Your task to perform on an android device: toggle pop-ups in chrome Image 0: 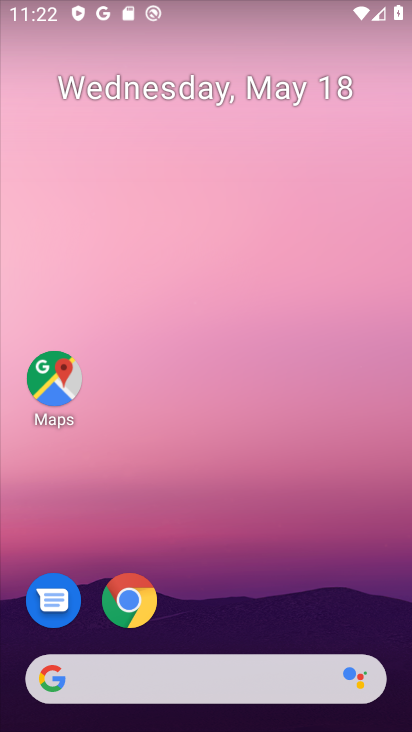
Step 0: click (132, 583)
Your task to perform on an android device: toggle pop-ups in chrome Image 1: 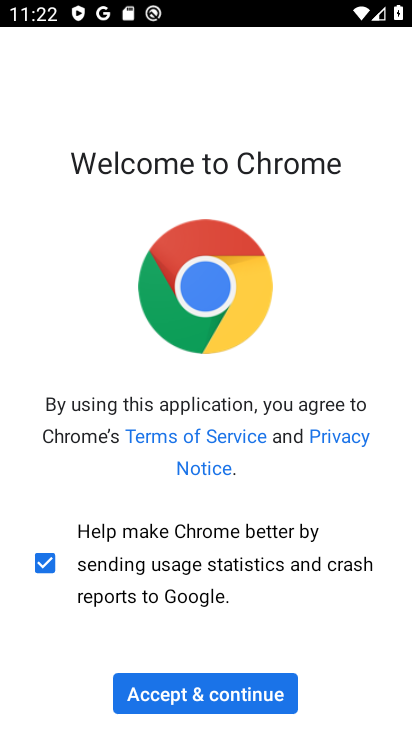
Step 1: click (217, 701)
Your task to perform on an android device: toggle pop-ups in chrome Image 2: 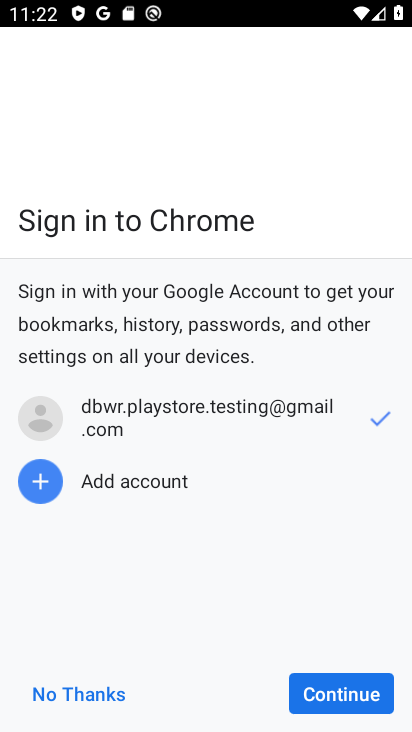
Step 2: click (361, 702)
Your task to perform on an android device: toggle pop-ups in chrome Image 3: 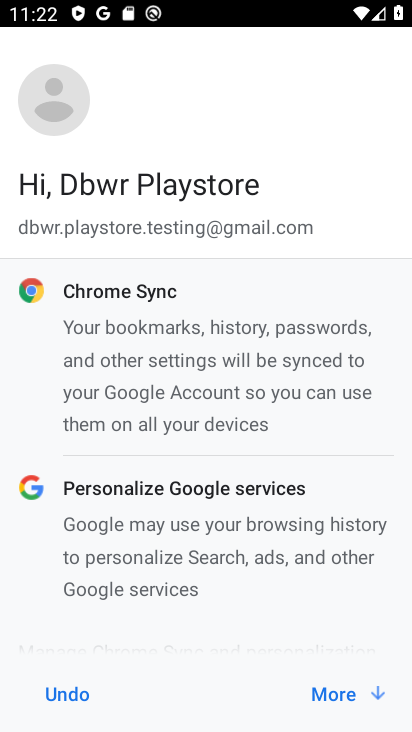
Step 3: click (359, 699)
Your task to perform on an android device: toggle pop-ups in chrome Image 4: 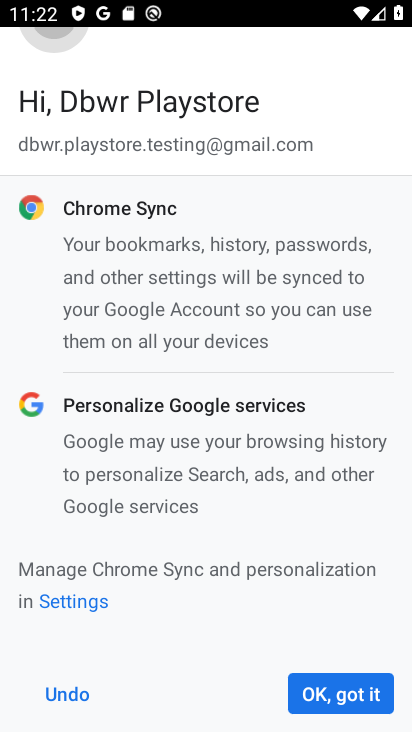
Step 4: click (358, 699)
Your task to perform on an android device: toggle pop-ups in chrome Image 5: 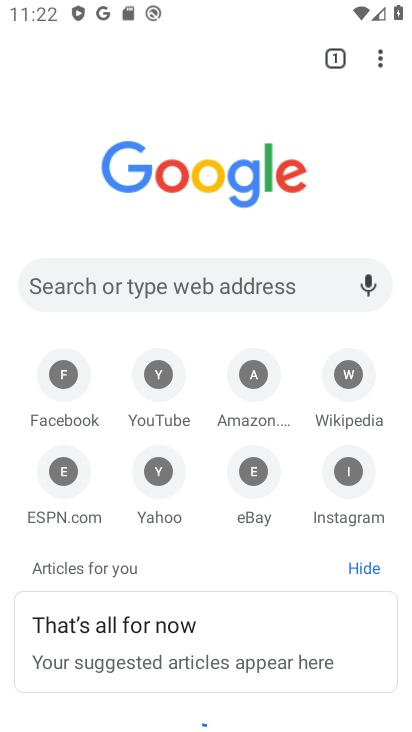
Step 5: click (380, 48)
Your task to perform on an android device: toggle pop-ups in chrome Image 6: 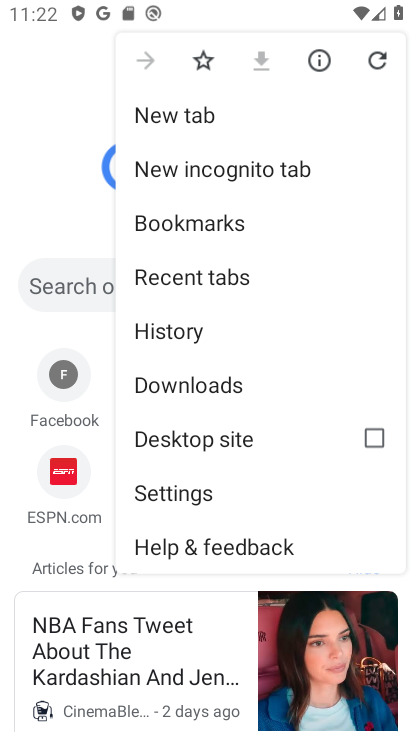
Step 6: click (203, 495)
Your task to perform on an android device: toggle pop-ups in chrome Image 7: 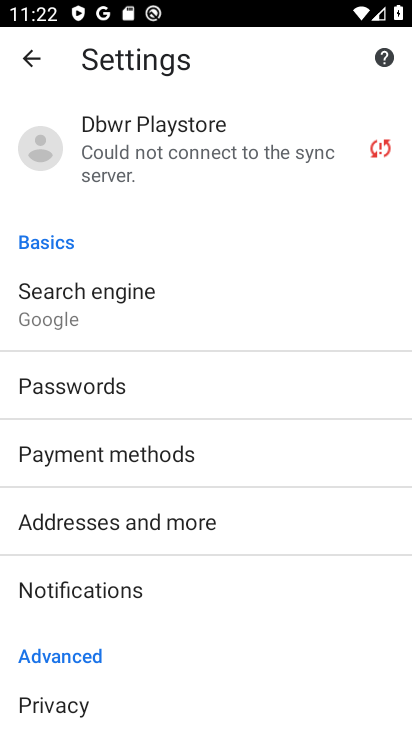
Step 7: drag from (132, 601) to (169, 337)
Your task to perform on an android device: toggle pop-ups in chrome Image 8: 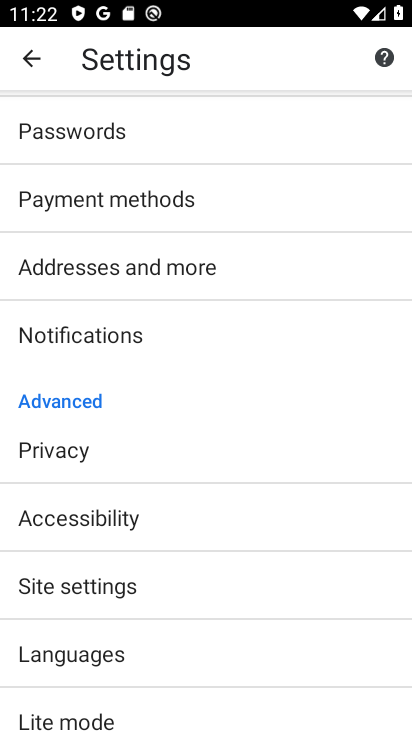
Step 8: click (131, 591)
Your task to perform on an android device: toggle pop-ups in chrome Image 9: 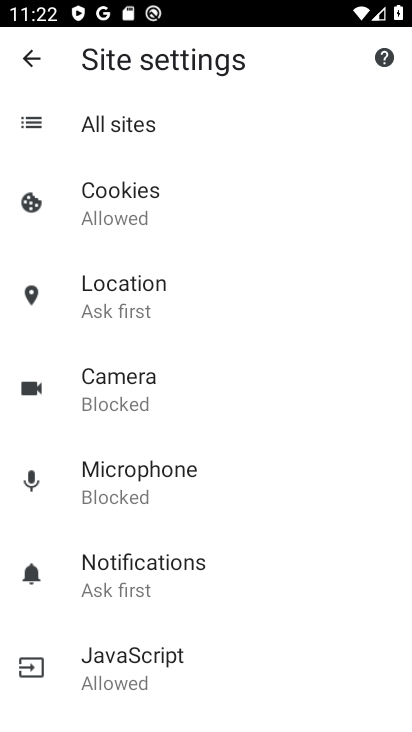
Step 9: drag from (167, 582) to (196, 270)
Your task to perform on an android device: toggle pop-ups in chrome Image 10: 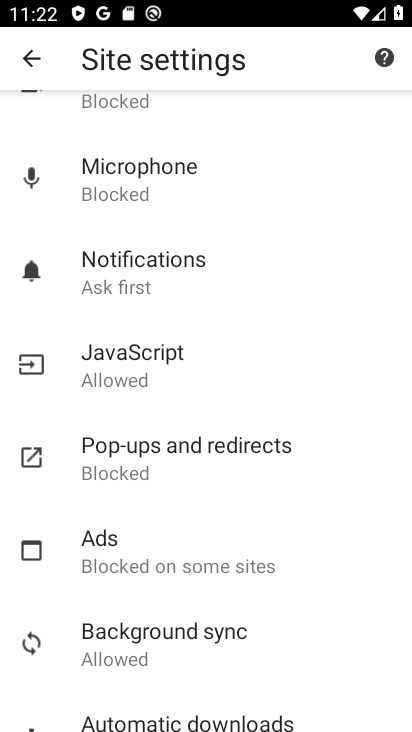
Step 10: click (183, 463)
Your task to perform on an android device: toggle pop-ups in chrome Image 11: 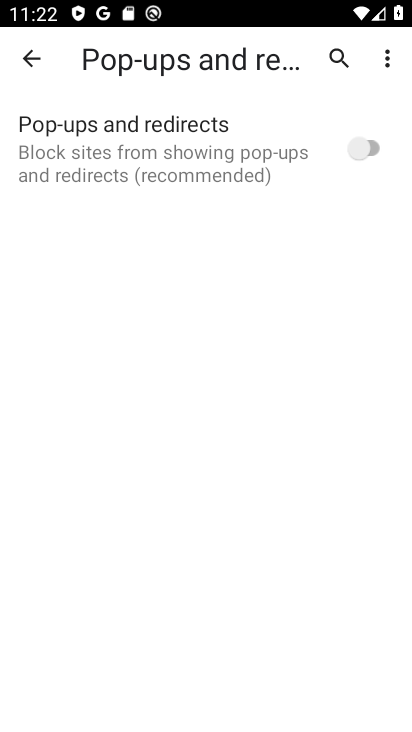
Step 11: click (367, 143)
Your task to perform on an android device: toggle pop-ups in chrome Image 12: 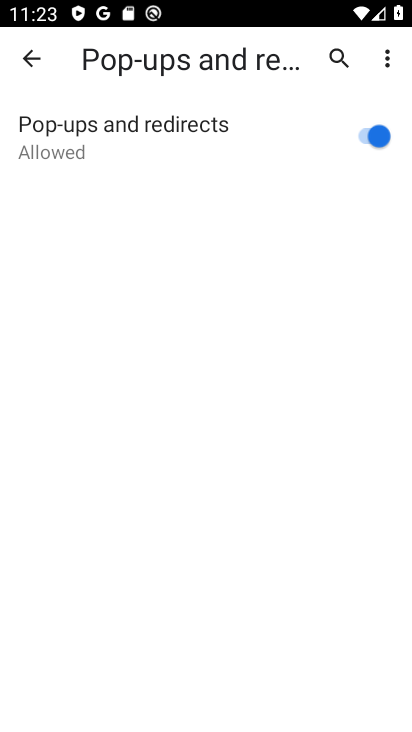
Step 12: task complete